Your task to perform on an android device: set the timer Image 0: 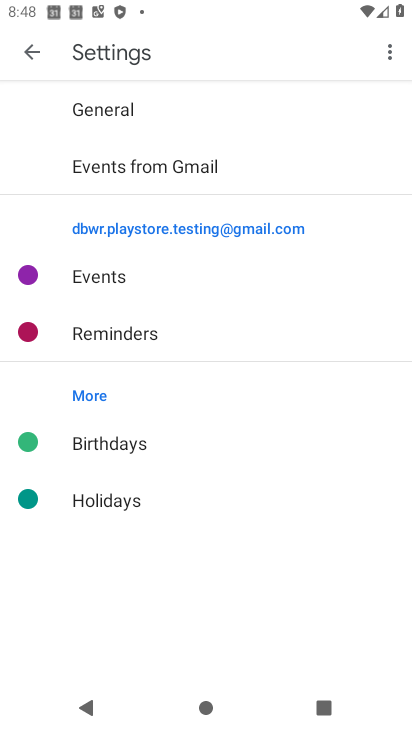
Step 0: press home button
Your task to perform on an android device: set the timer Image 1: 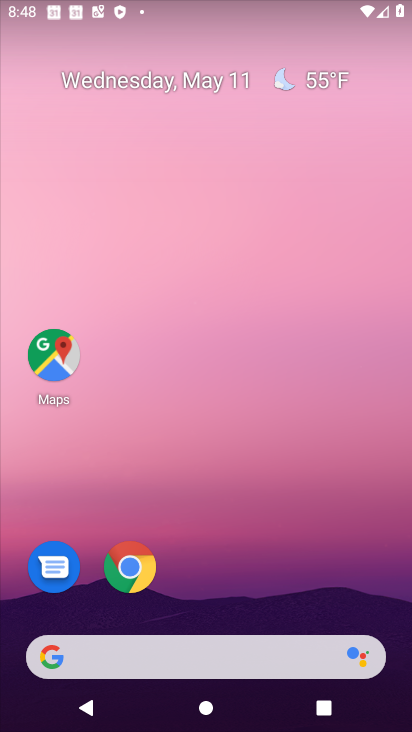
Step 1: drag from (232, 551) to (319, 48)
Your task to perform on an android device: set the timer Image 2: 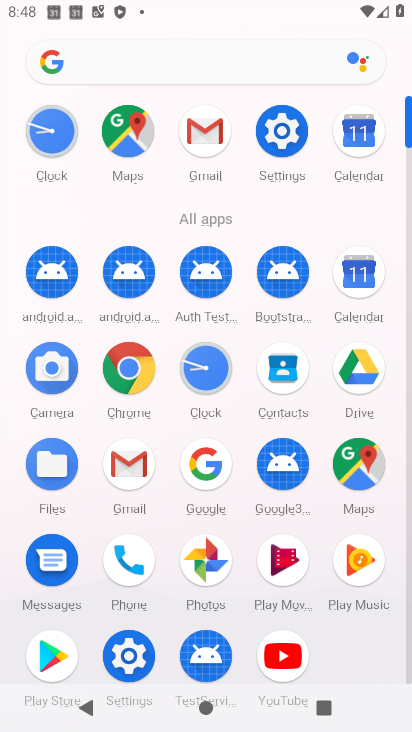
Step 2: click (219, 370)
Your task to perform on an android device: set the timer Image 3: 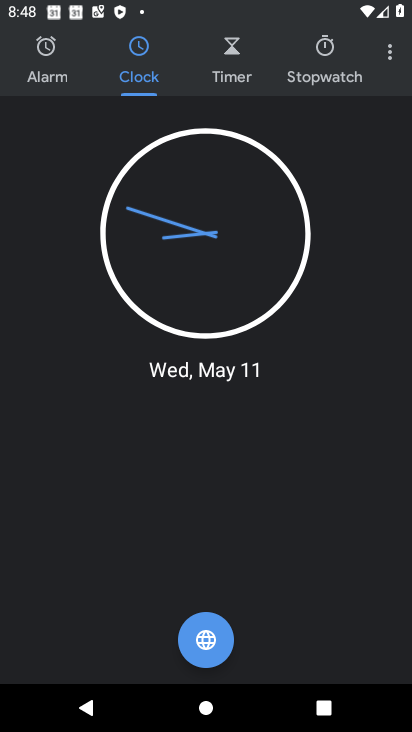
Step 3: click (217, 73)
Your task to perform on an android device: set the timer Image 4: 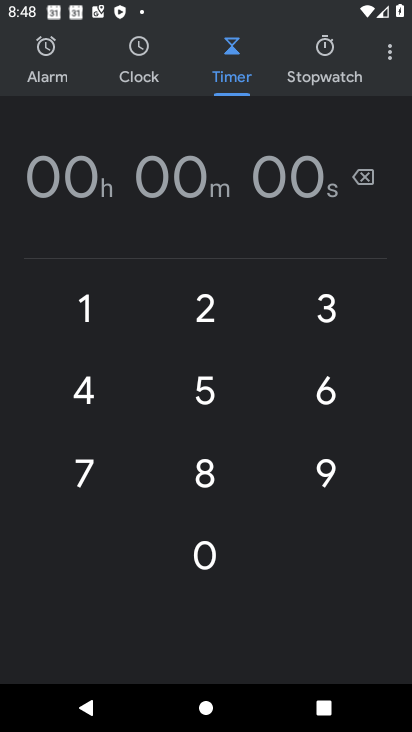
Step 4: click (75, 482)
Your task to perform on an android device: set the timer Image 5: 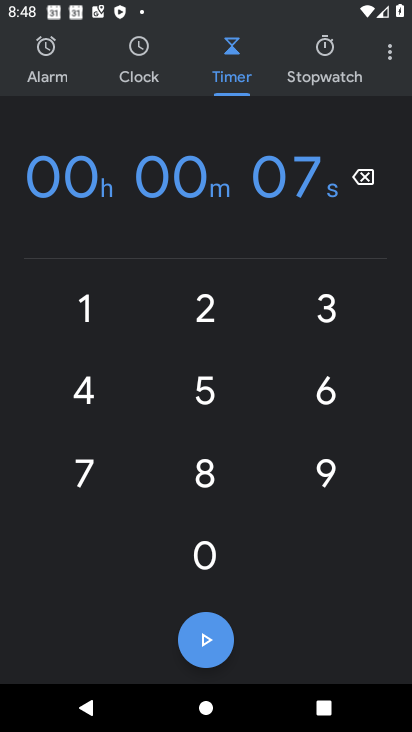
Step 5: click (207, 381)
Your task to perform on an android device: set the timer Image 6: 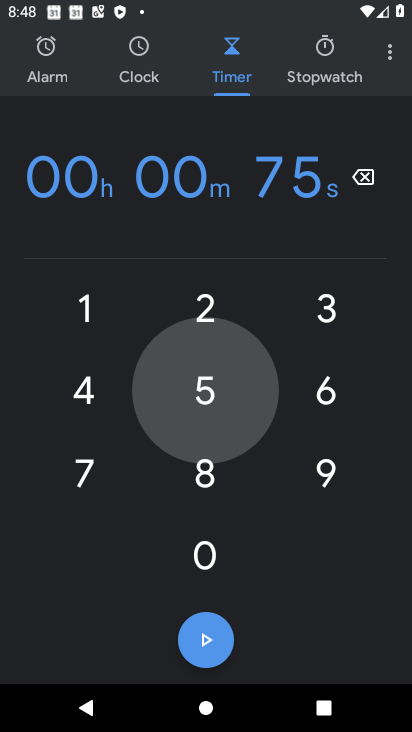
Step 6: click (323, 388)
Your task to perform on an android device: set the timer Image 7: 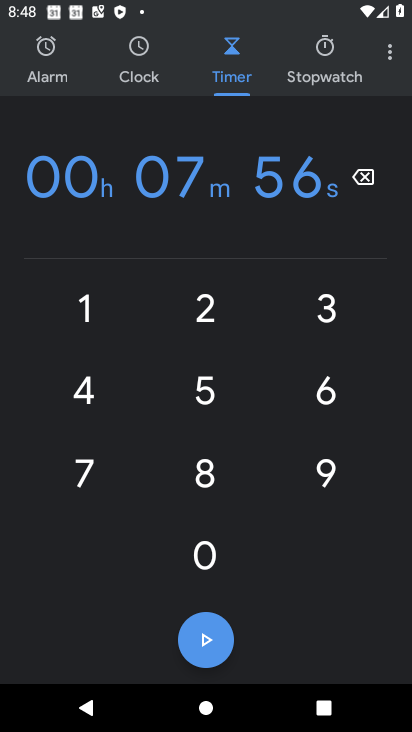
Step 7: click (200, 657)
Your task to perform on an android device: set the timer Image 8: 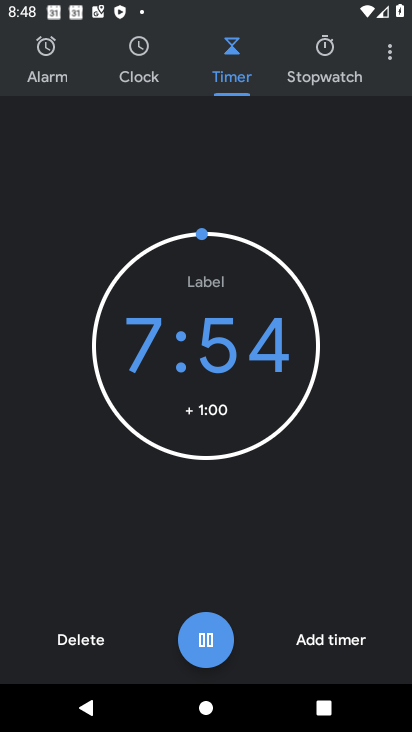
Step 8: task complete